Your task to perform on an android device: turn off translation in the chrome app Image 0: 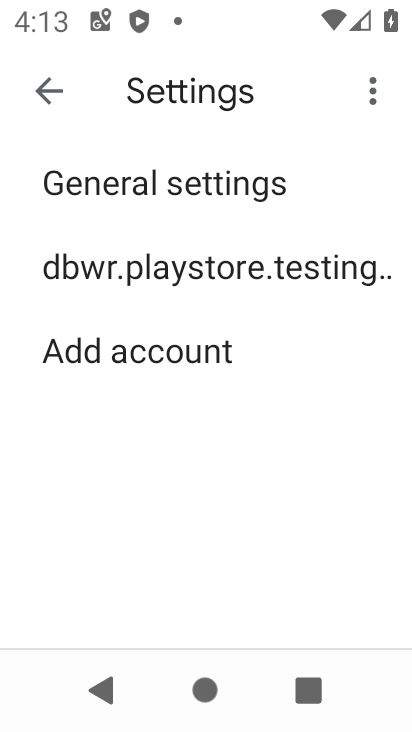
Step 0: press home button
Your task to perform on an android device: turn off translation in the chrome app Image 1: 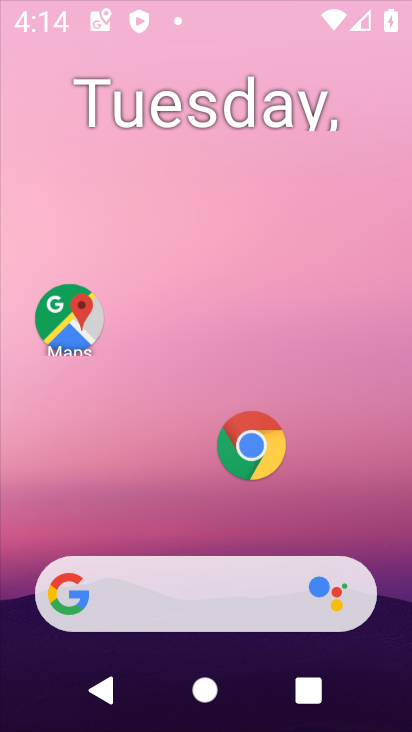
Step 1: press home button
Your task to perform on an android device: turn off translation in the chrome app Image 2: 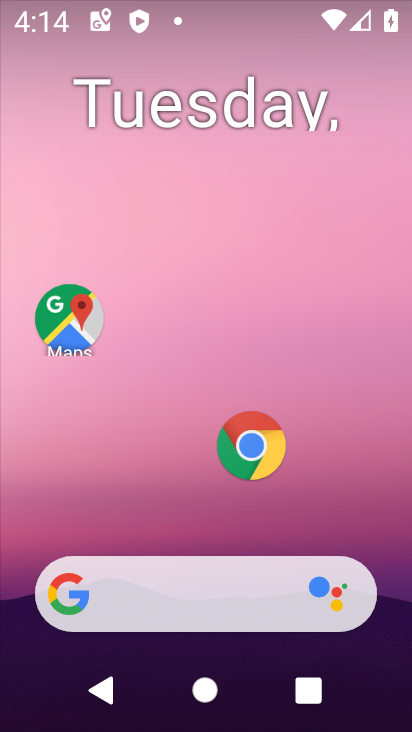
Step 2: click (243, 458)
Your task to perform on an android device: turn off translation in the chrome app Image 3: 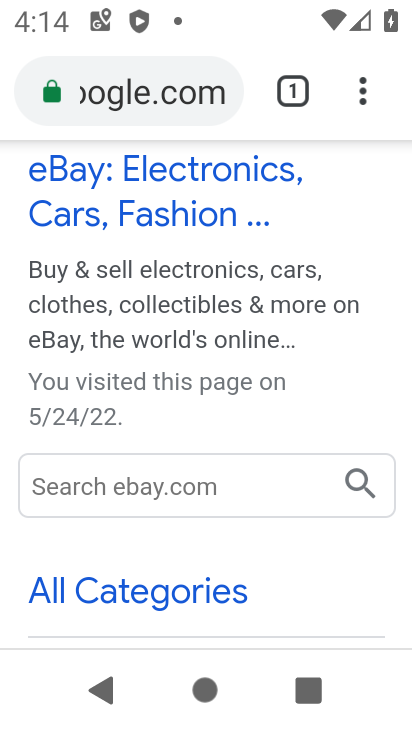
Step 3: click (357, 98)
Your task to perform on an android device: turn off translation in the chrome app Image 4: 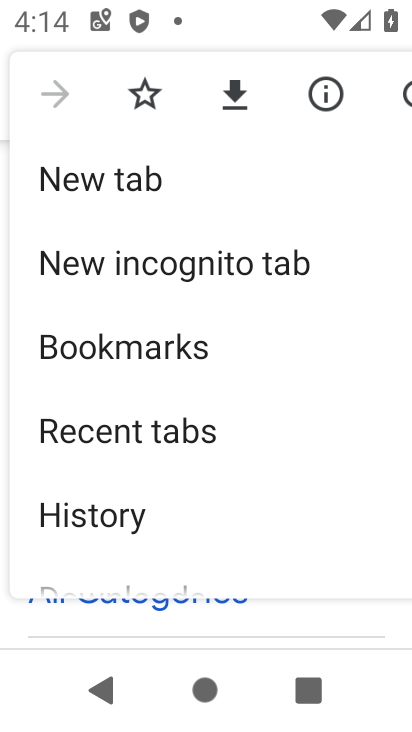
Step 4: drag from (177, 522) to (191, 251)
Your task to perform on an android device: turn off translation in the chrome app Image 5: 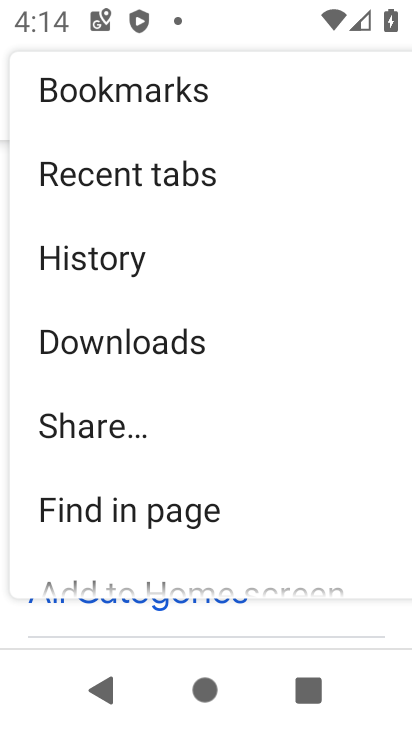
Step 5: drag from (162, 296) to (184, 162)
Your task to perform on an android device: turn off translation in the chrome app Image 6: 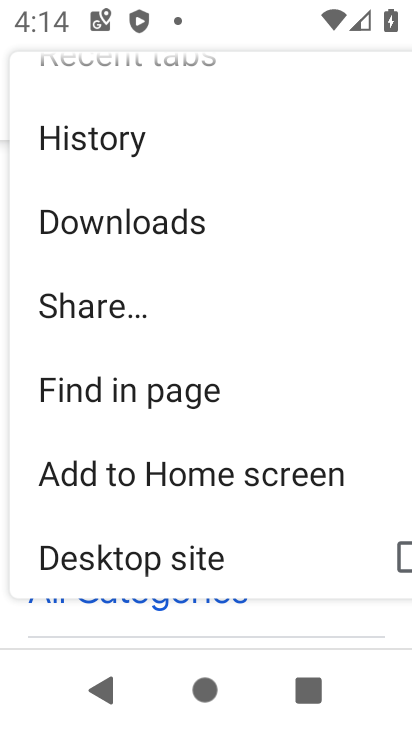
Step 6: drag from (127, 474) to (171, 208)
Your task to perform on an android device: turn off translation in the chrome app Image 7: 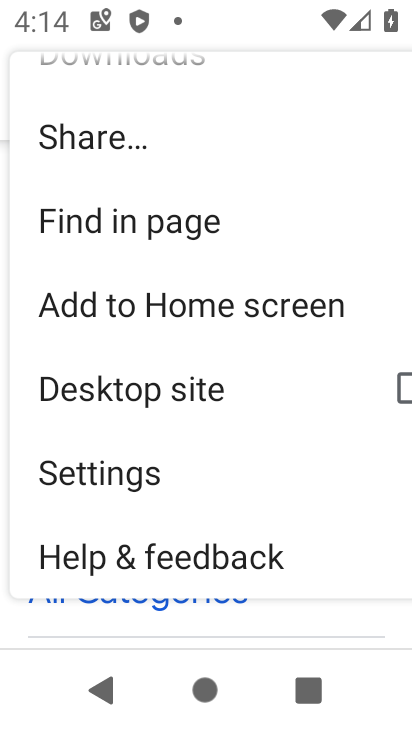
Step 7: click (112, 482)
Your task to perform on an android device: turn off translation in the chrome app Image 8: 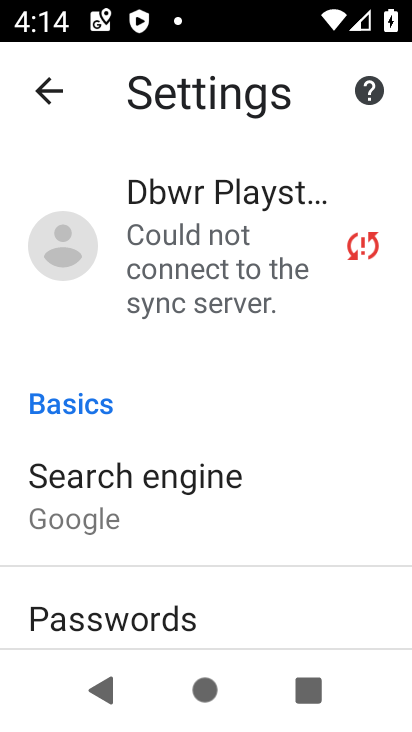
Step 8: click (117, 488)
Your task to perform on an android device: turn off translation in the chrome app Image 9: 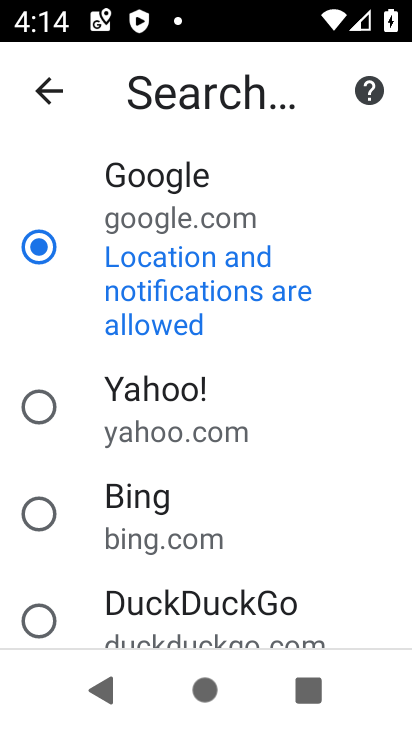
Step 9: click (49, 81)
Your task to perform on an android device: turn off translation in the chrome app Image 10: 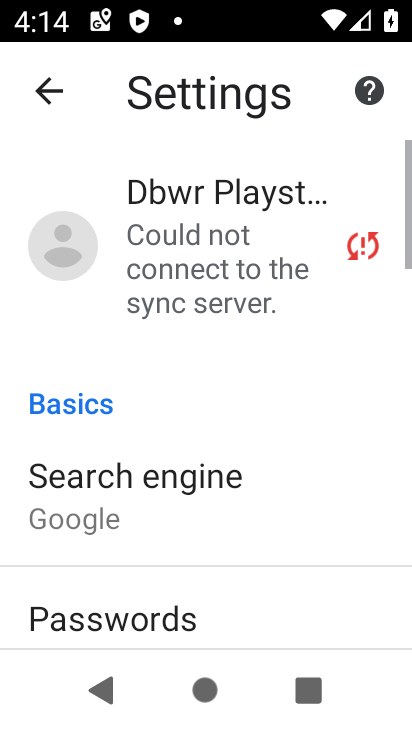
Step 10: drag from (185, 524) to (217, 36)
Your task to perform on an android device: turn off translation in the chrome app Image 11: 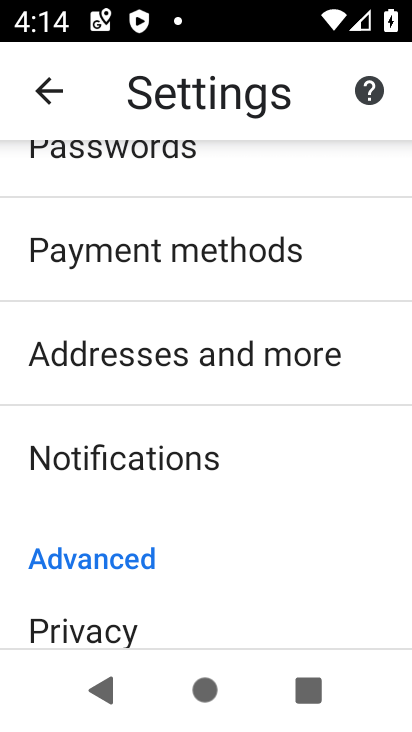
Step 11: drag from (172, 560) to (192, 237)
Your task to perform on an android device: turn off translation in the chrome app Image 12: 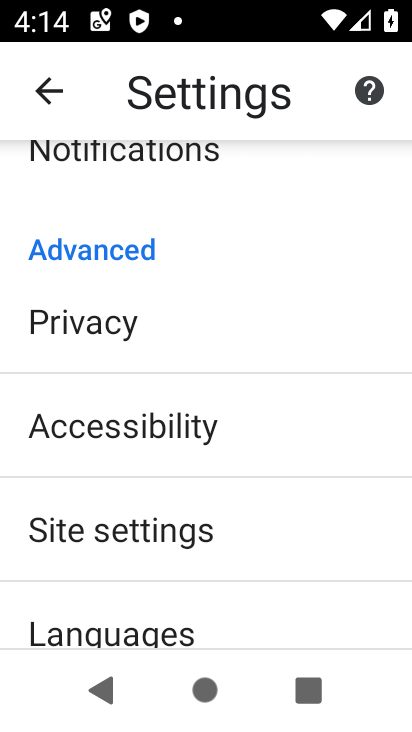
Step 12: drag from (162, 527) to (168, 287)
Your task to perform on an android device: turn off translation in the chrome app Image 13: 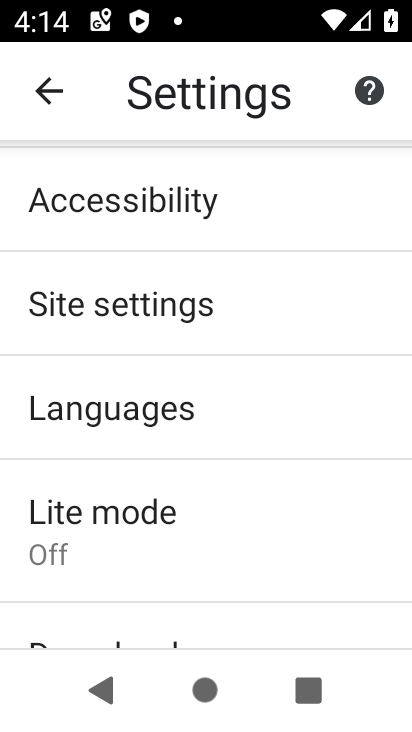
Step 13: click (143, 409)
Your task to perform on an android device: turn off translation in the chrome app Image 14: 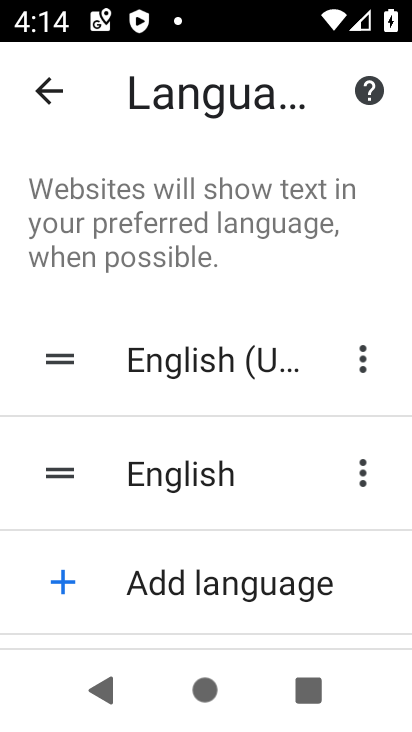
Step 14: drag from (202, 547) to (240, 229)
Your task to perform on an android device: turn off translation in the chrome app Image 15: 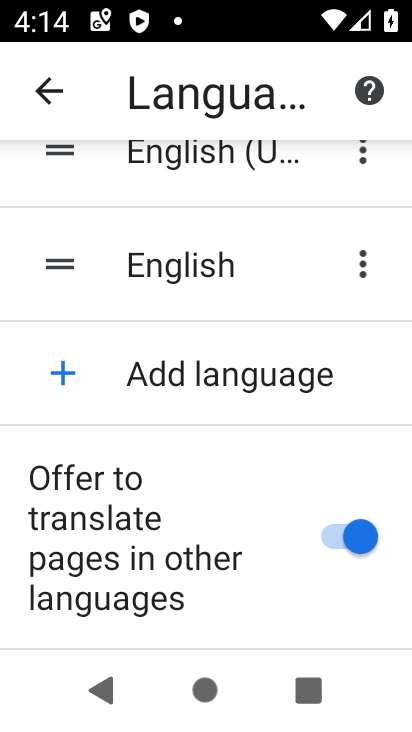
Step 15: drag from (242, 575) to (261, 44)
Your task to perform on an android device: turn off translation in the chrome app Image 16: 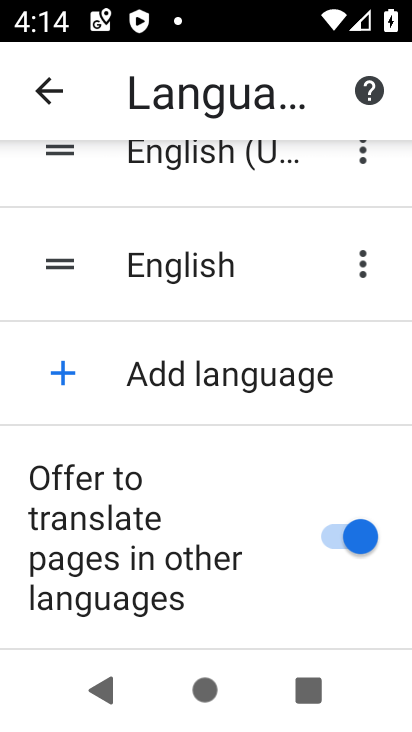
Step 16: click (325, 542)
Your task to perform on an android device: turn off translation in the chrome app Image 17: 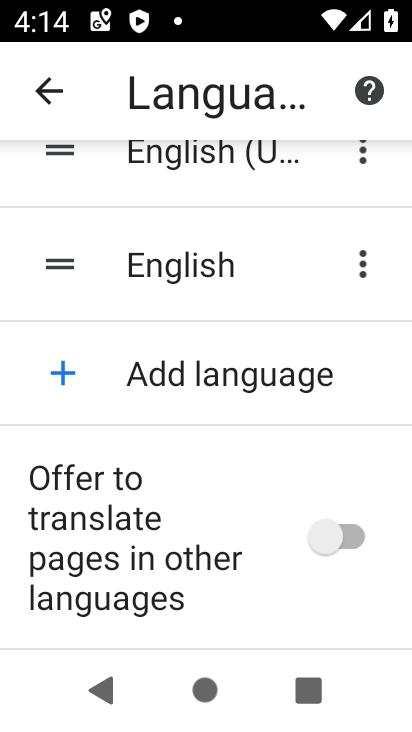
Step 17: task complete